Your task to perform on an android device: Go to privacy settings Image 0: 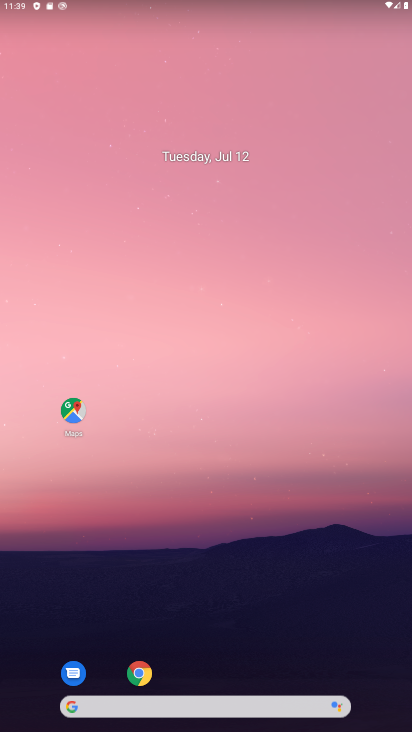
Step 0: drag from (261, 643) to (221, 120)
Your task to perform on an android device: Go to privacy settings Image 1: 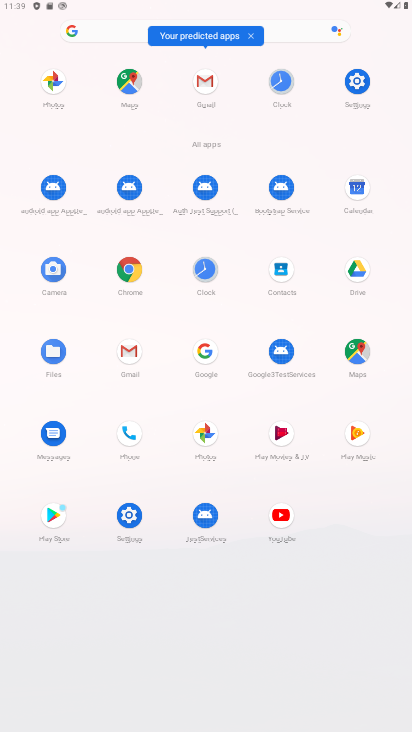
Step 1: click (123, 521)
Your task to perform on an android device: Go to privacy settings Image 2: 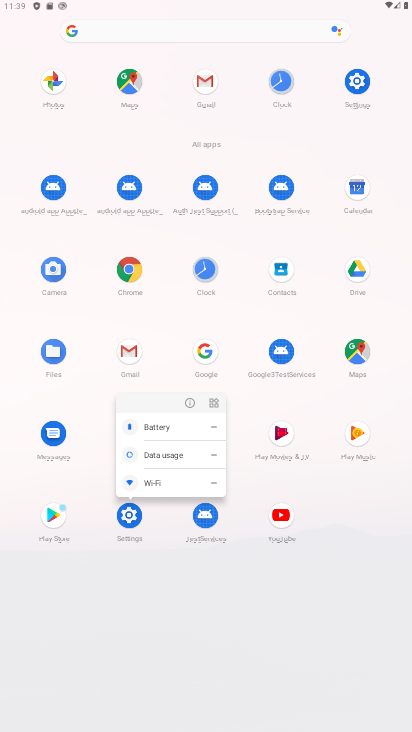
Step 2: click (187, 403)
Your task to perform on an android device: Go to privacy settings Image 3: 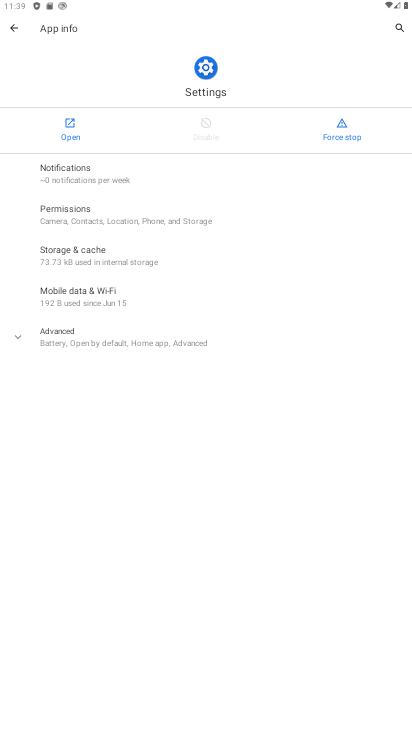
Step 3: click (63, 133)
Your task to perform on an android device: Go to privacy settings Image 4: 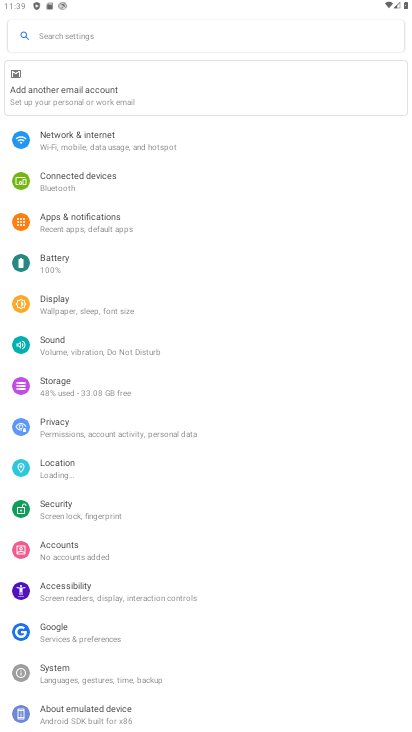
Step 4: drag from (174, 507) to (203, 196)
Your task to perform on an android device: Go to privacy settings Image 5: 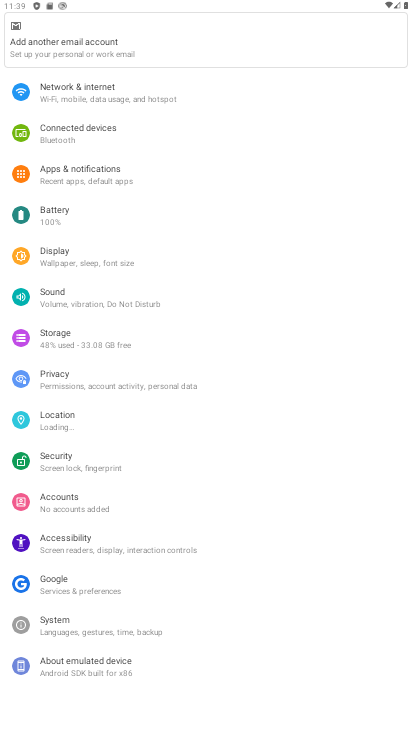
Step 5: click (87, 372)
Your task to perform on an android device: Go to privacy settings Image 6: 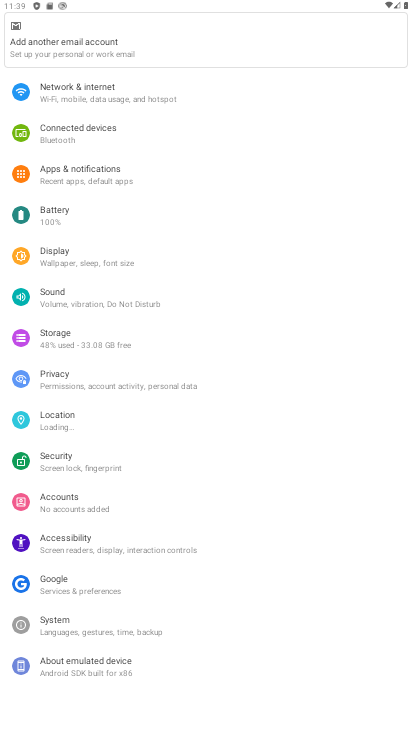
Step 6: drag from (218, 439) to (209, 222)
Your task to perform on an android device: Go to privacy settings Image 7: 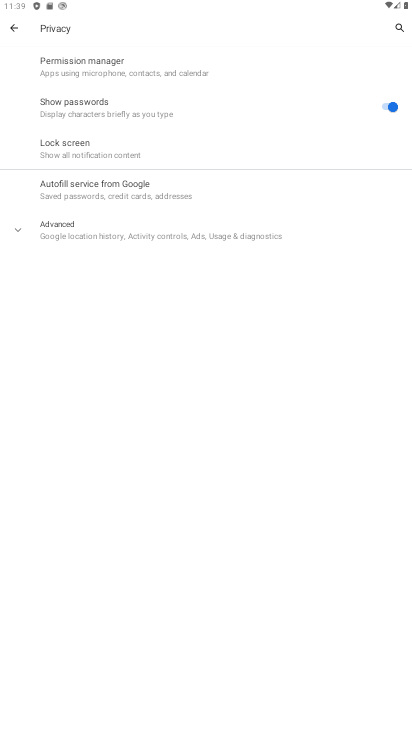
Step 7: click (83, 223)
Your task to perform on an android device: Go to privacy settings Image 8: 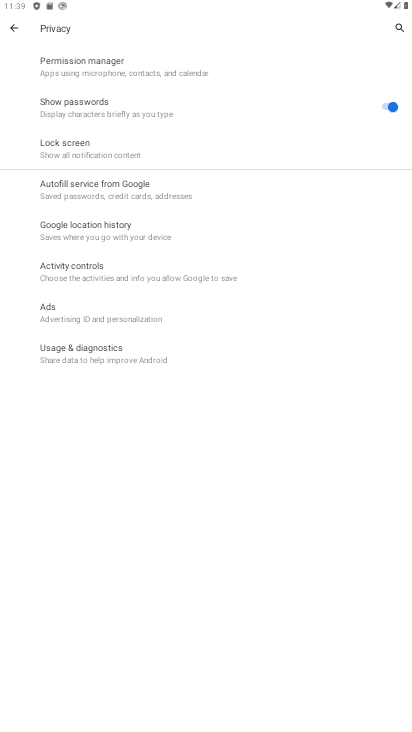
Step 8: task complete